Your task to perform on an android device: Go to Yahoo.com Image 0: 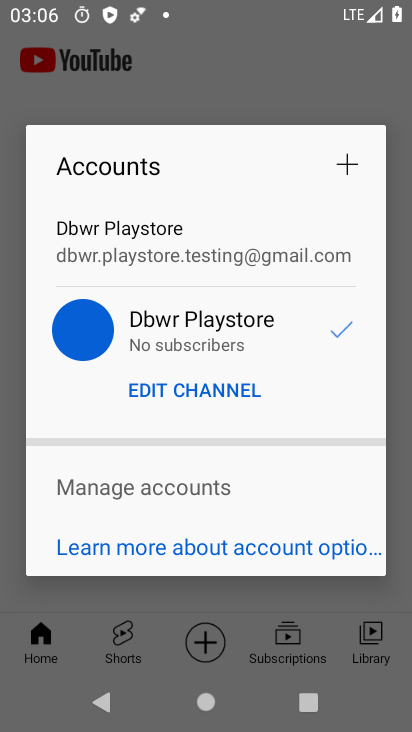
Step 0: click (197, 575)
Your task to perform on an android device: Go to Yahoo.com Image 1: 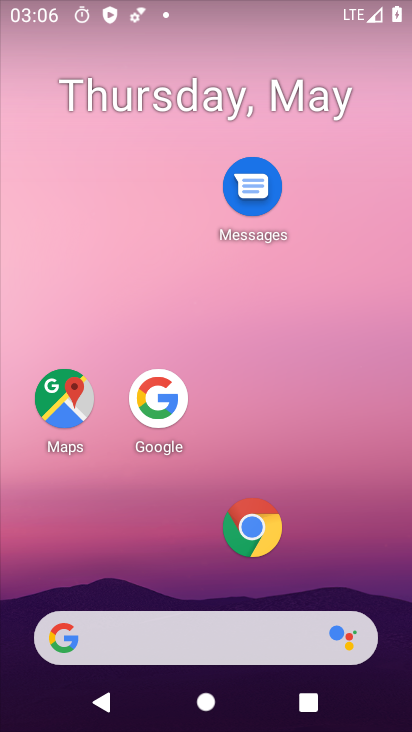
Step 1: click (171, 666)
Your task to perform on an android device: Go to Yahoo.com Image 2: 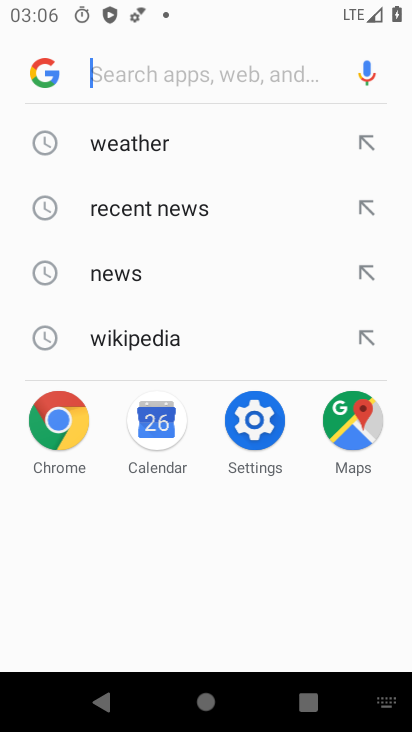
Step 2: type "Yahoo.com"
Your task to perform on an android device: Go to Yahoo.com Image 3: 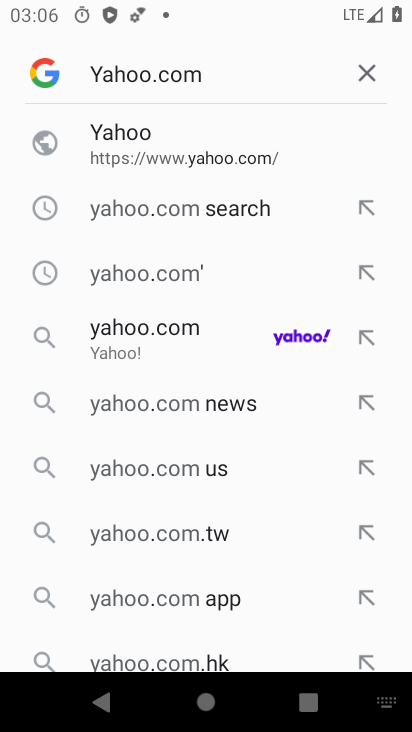
Step 3: click (207, 355)
Your task to perform on an android device: Go to Yahoo.com Image 4: 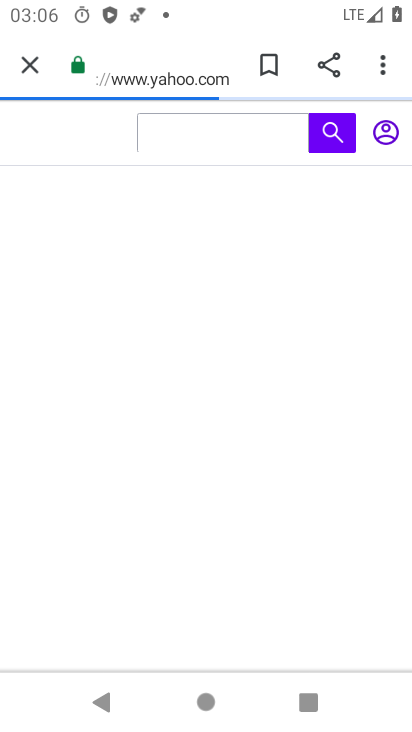
Step 4: task complete